Your task to perform on an android device: Show me popular videos on Youtube Image 0: 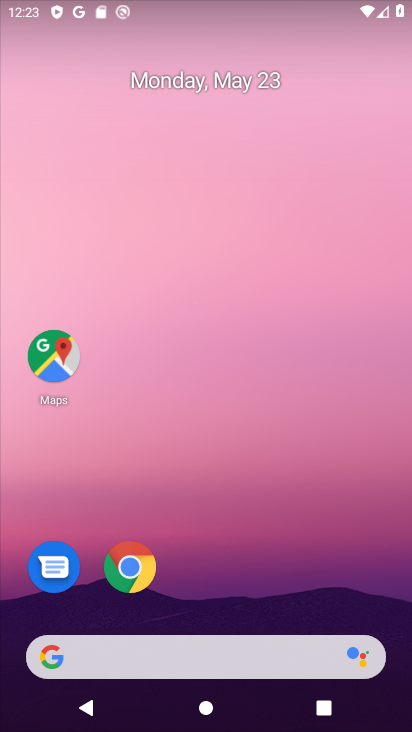
Step 0: drag from (214, 600) to (227, 295)
Your task to perform on an android device: Show me popular videos on Youtube Image 1: 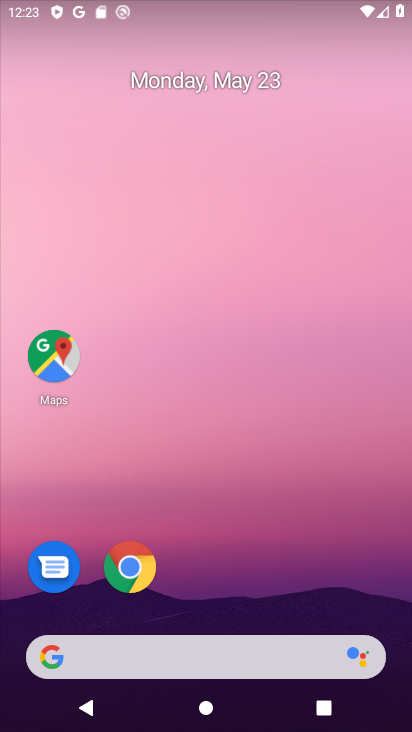
Step 1: drag from (210, 627) to (204, 240)
Your task to perform on an android device: Show me popular videos on Youtube Image 2: 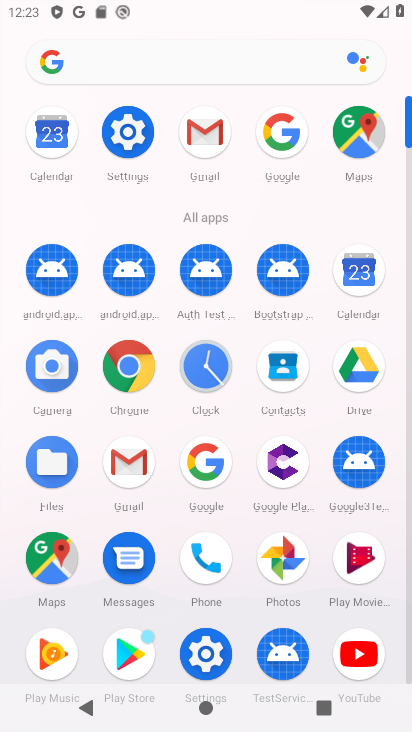
Step 2: drag from (242, 691) to (258, 372)
Your task to perform on an android device: Show me popular videos on Youtube Image 3: 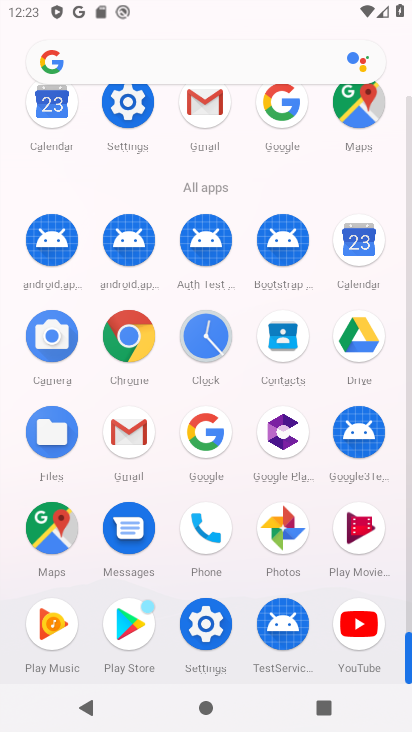
Step 3: click (346, 619)
Your task to perform on an android device: Show me popular videos on Youtube Image 4: 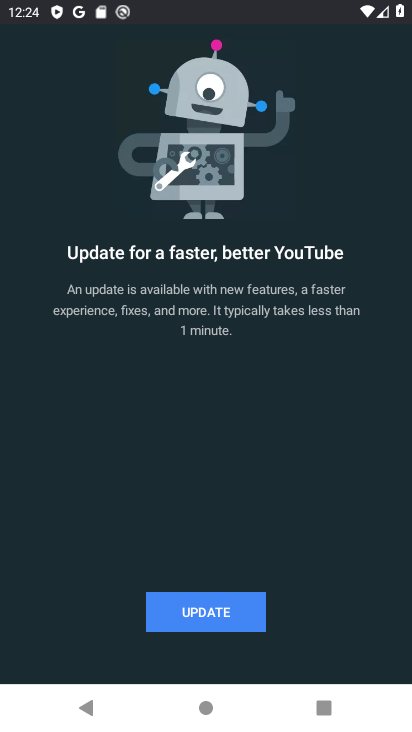
Step 4: click (192, 615)
Your task to perform on an android device: Show me popular videos on Youtube Image 5: 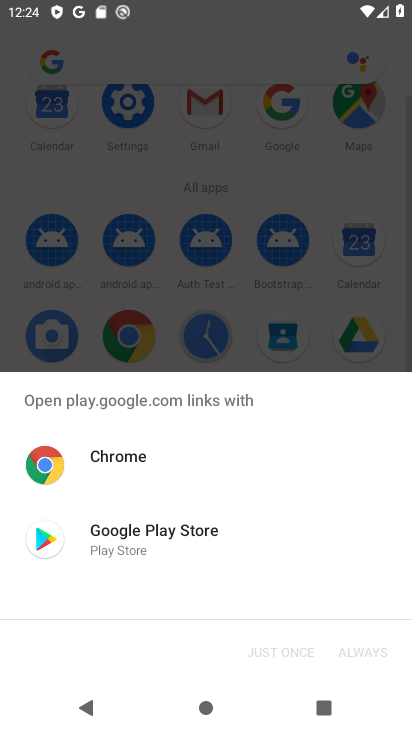
Step 5: click (144, 511)
Your task to perform on an android device: Show me popular videos on Youtube Image 6: 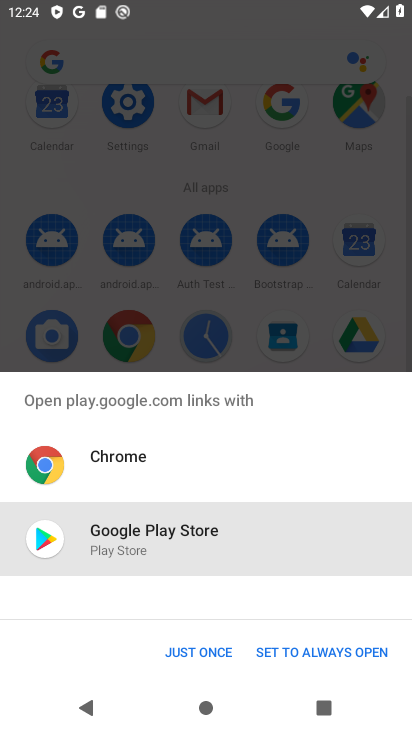
Step 6: click (189, 638)
Your task to perform on an android device: Show me popular videos on Youtube Image 7: 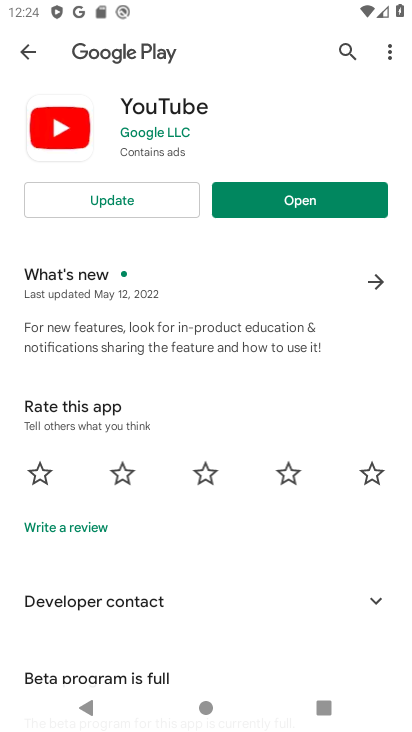
Step 7: click (104, 201)
Your task to perform on an android device: Show me popular videos on Youtube Image 8: 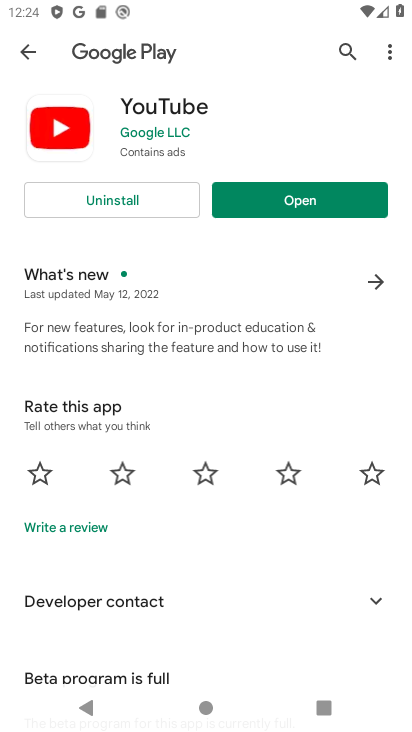
Step 8: click (261, 199)
Your task to perform on an android device: Show me popular videos on Youtube Image 9: 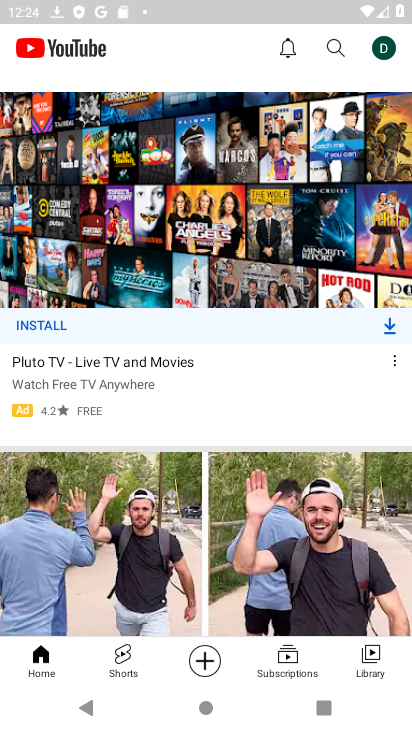
Step 9: click (336, 50)
Your task to perform on an android device: Show me popular videos on Youtube Image 10: 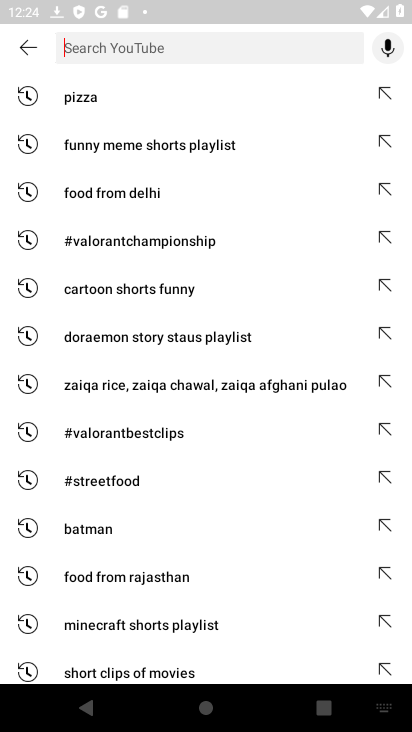
Step 10: type "popular videos"
Your task to perform on an android device: Show me popular videos on Youtube Image 11: 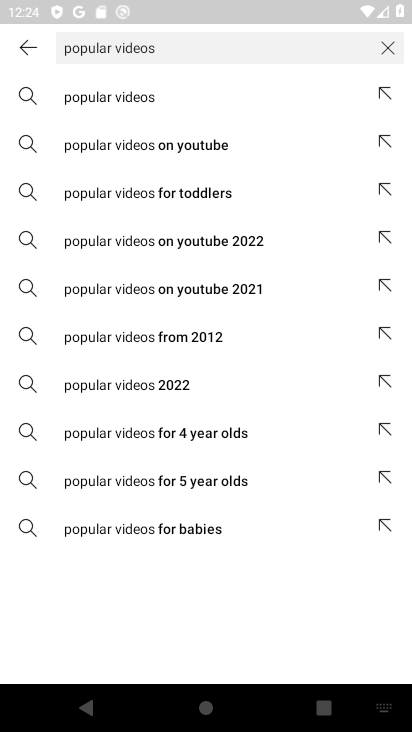
Step 11: click (181, 92)
Your task to perform on an android device: Show me popular videos on Youtube Image 12: 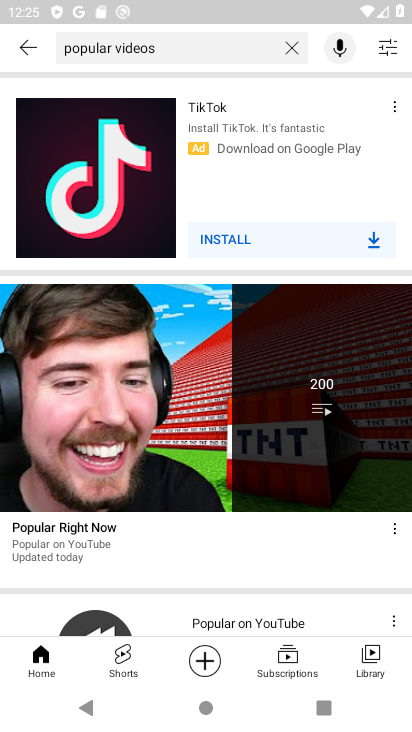
Step 12: task complete